Your task to perform on an android device: delete a single message in the gmail app Image 0: 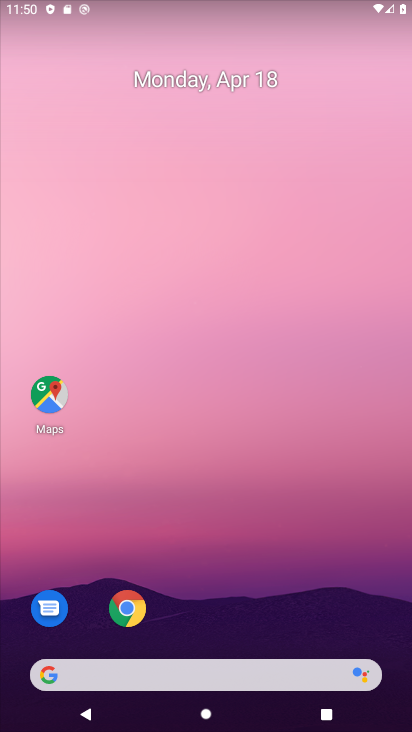
Step 0: drag from (156, 648) to (257, 67)
Your task to perform on an android device: delete a single message in the gmail app Image 1: 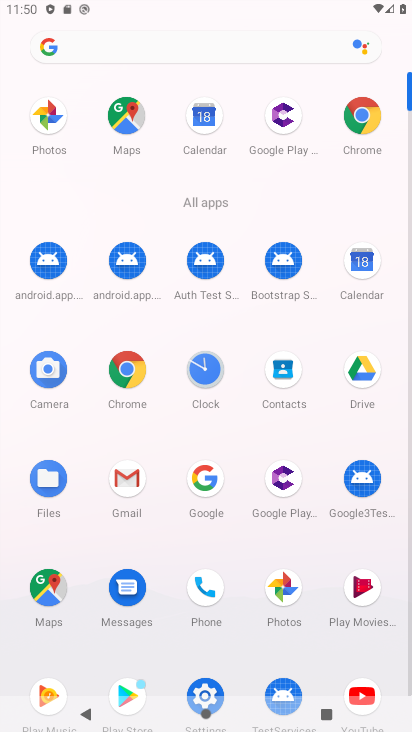
Step 1: click (139, 472)
Your task to perform on an android device: delete a single message in the gmail app Image 2: 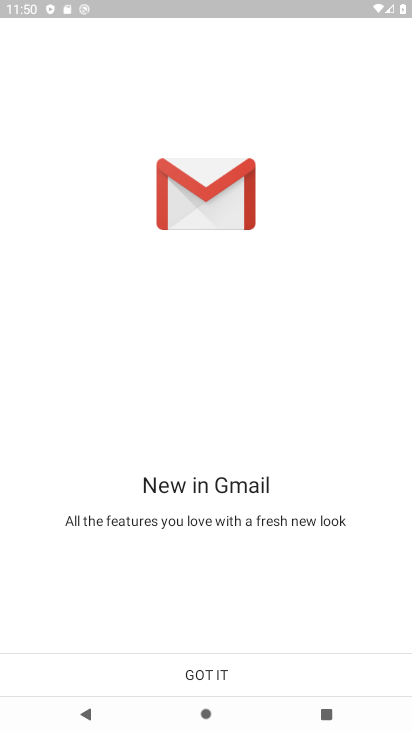
Step 2: click (241, 680)
Your task to perform on an android device: delete a single message in the gmail app Image 3: 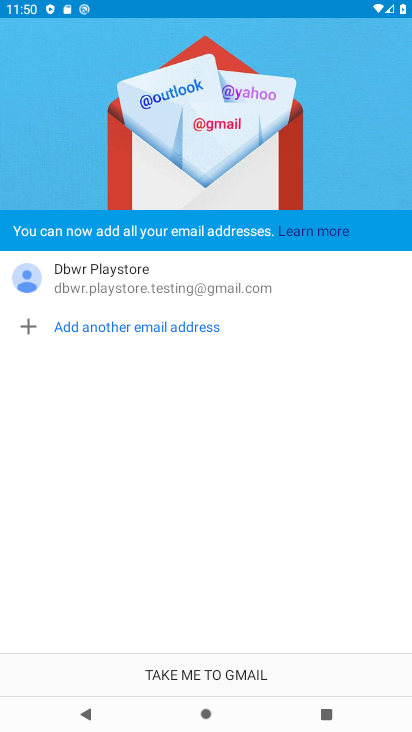
Step 3: click (241, 679)
Your task to perform on an android device: delete a single message in the gmail app Image 4: 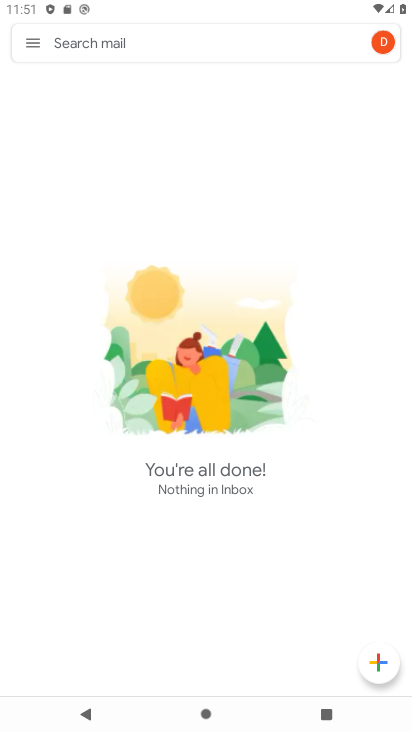
Step 4: click (39, 28)
Your task to perform on an android device: delete a single message in the gmail app Image 5: 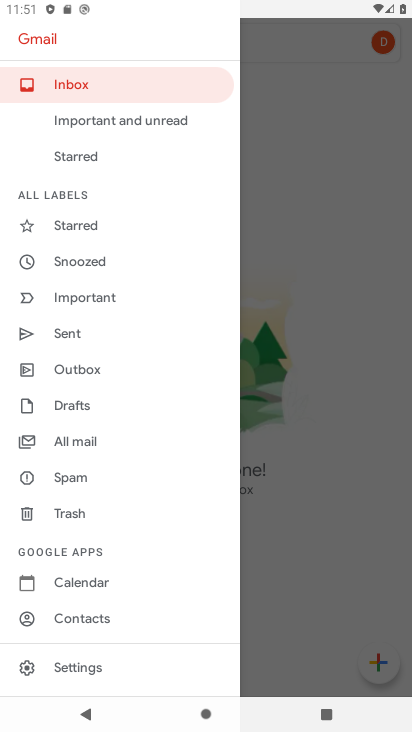
Step 5: click (116, 444)
Your task to perform on an android device: delete a single message in the gmail app Image 6: 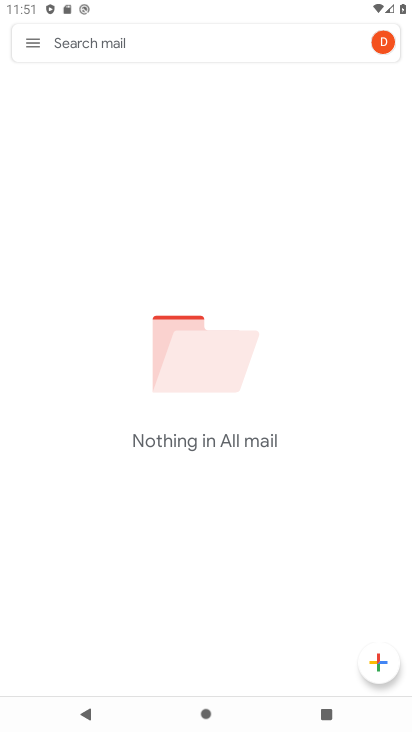
Step 6: task complete